Your task to perform on an android device: Open calendar and show me the fourth week of next month Image 0: 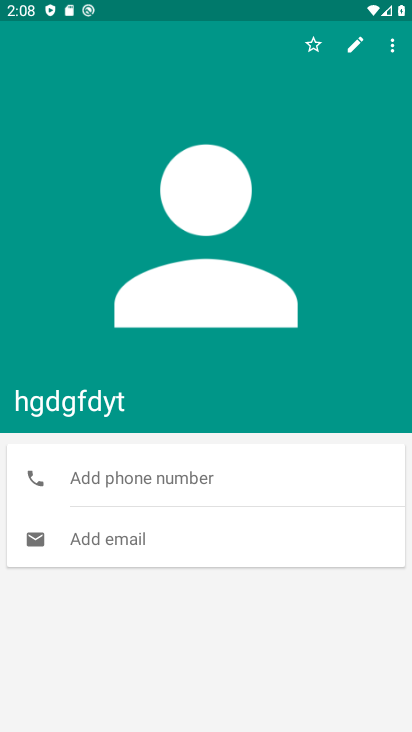
Step 0: press home button
Your task to perform on an android device: Open calendar and show me the fourth week of next month Image 1: 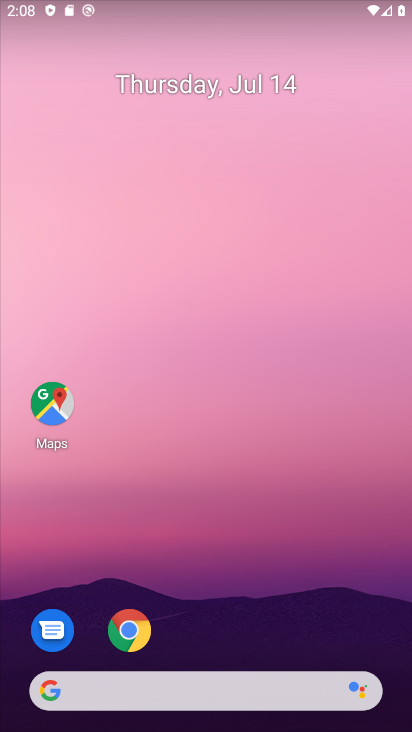
Step 1: drag from (220, 653) to (264, 111)
Your task to perform on an android device: Open calendar and show me the fourth week of next month Image 2: 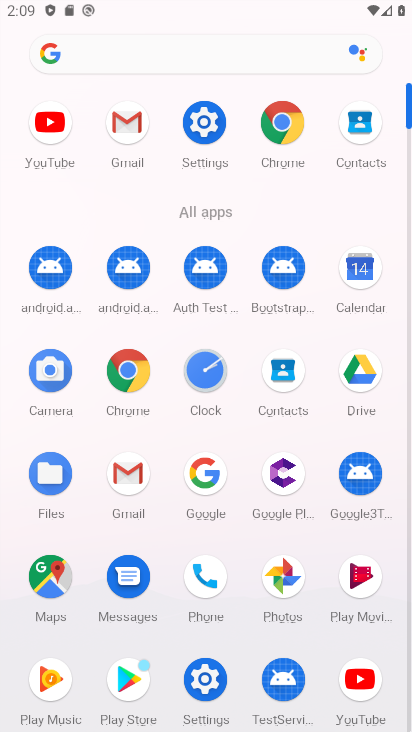
Step 2: click (362, 264)
Your task to perform on an android device: Open calendar and show me the fourth week of next month Image 3: 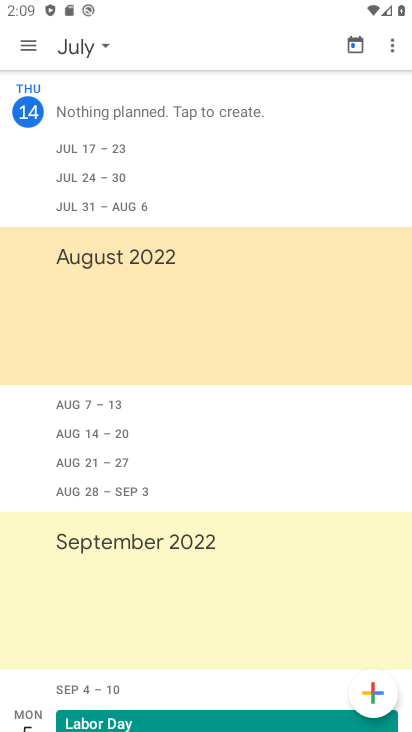
Step 3: click (23, 43)
Your task to perform on an android device: Open calendar and show me the fourth week of next month Image 4: 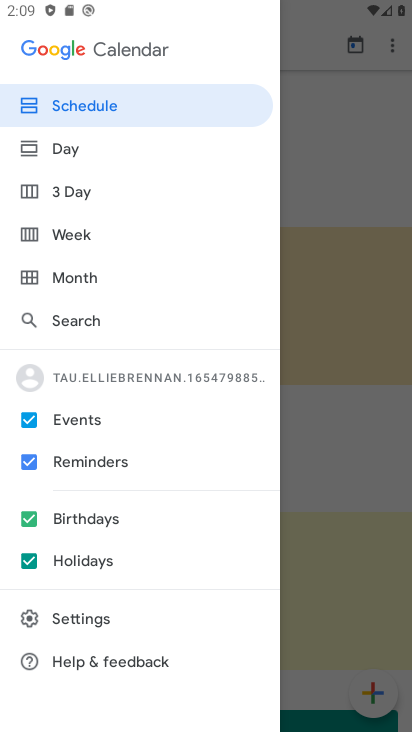
Step 4: click (82, 235)
Your task to perform on an android device: Open calendar and show me the fourth week of next month Image 5: 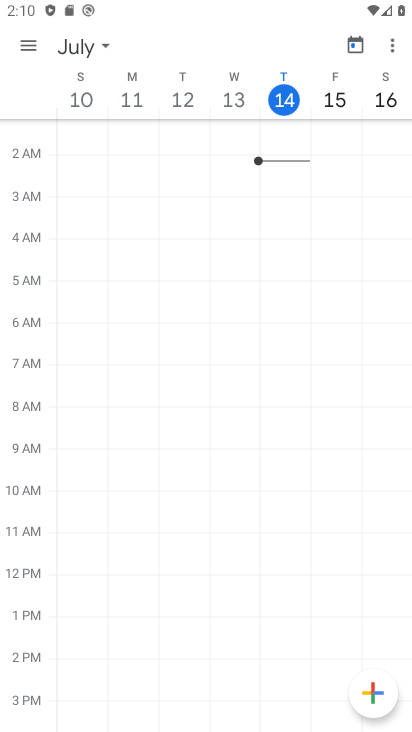
Step 5: click (106, 48)
Your task to perform on an android device: Open calendar and show me the fourth week of next month Image 6: 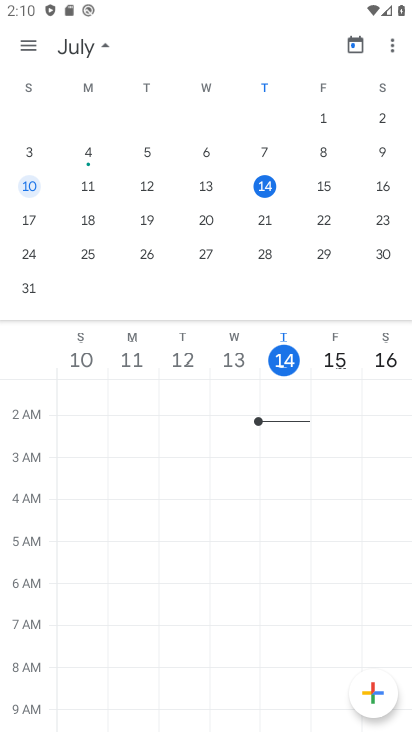
Step 6: drag from (367, 196) to (0, 204)
Your task to perform on an android device: Open calendar and show me the fourth week of next month Image 7: 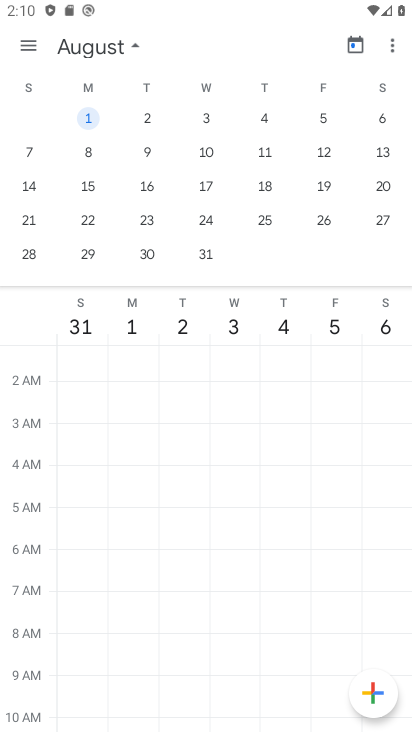
Step 7: click (25, 222)
Your task to perform on an android device: Open calendar and show me the fourth week of next month Image 8: 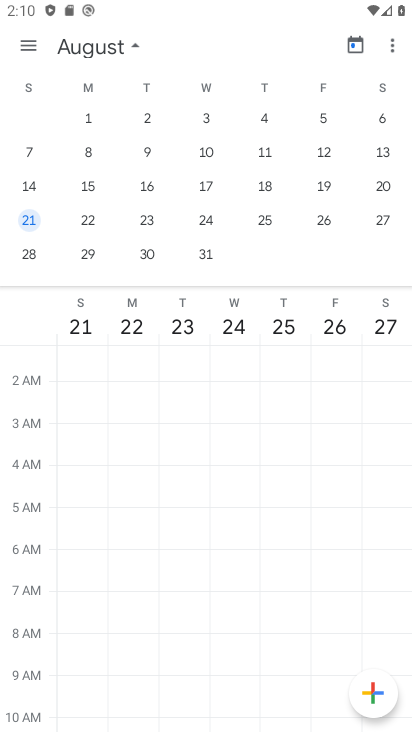
Step 8: click (136, 43)
Your task to perform on an android device: Open calendar and show me the fourth week of next month Image 9: 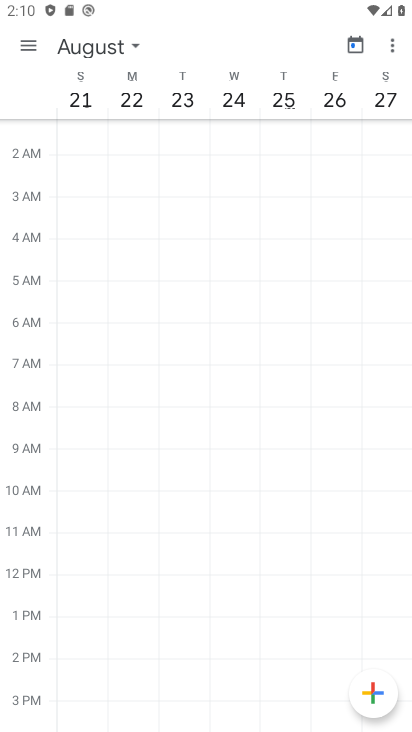
Step 9: task complete